Your task to perform on an android device: show emergency info Image 0: 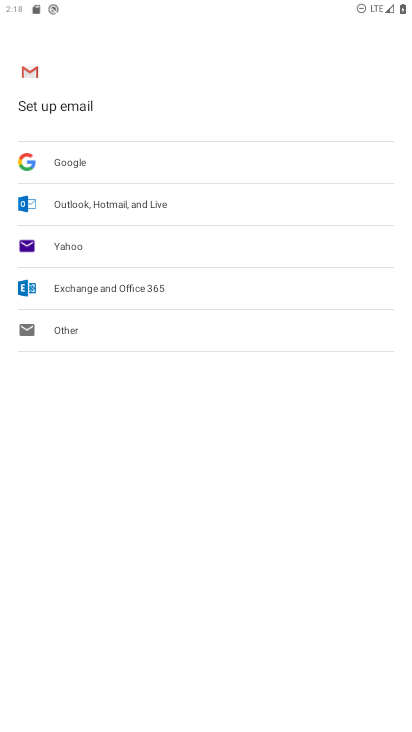
Step 0: press home button
Your task to perform on an android device: show emergency info Image 1: 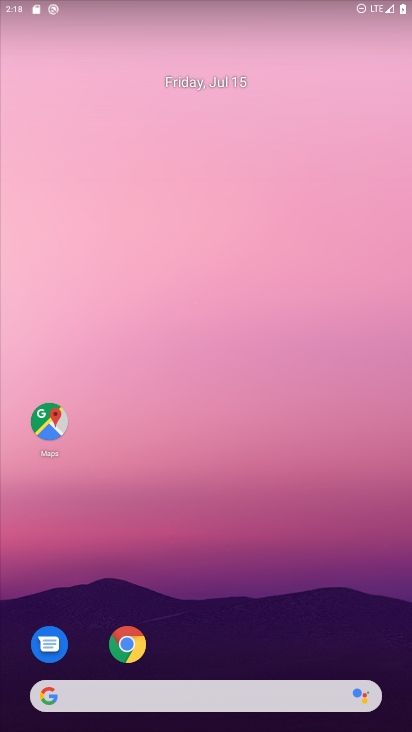
Step 1: drag from (20, 384) to (80, 184)
Your task to perform on an android device: show emergency info Image 2: 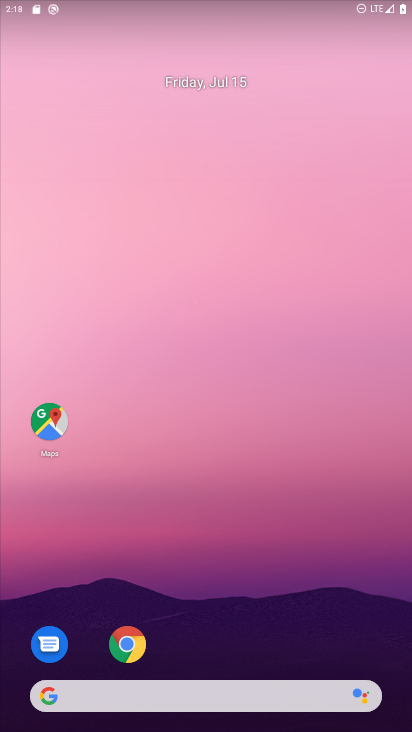
Step 2: drag from (15, 728) to (282, 106)
Your task to perform on an android device: show emergency info Image 3: 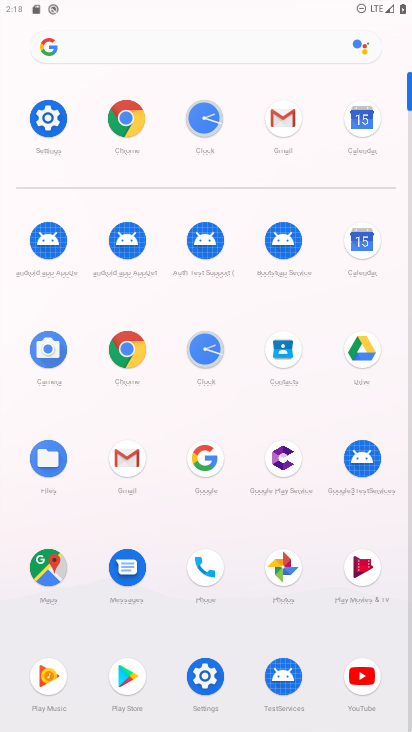
Step 3: click (42, 133)
Your task to perform on an android device: show emergency info Image 4: 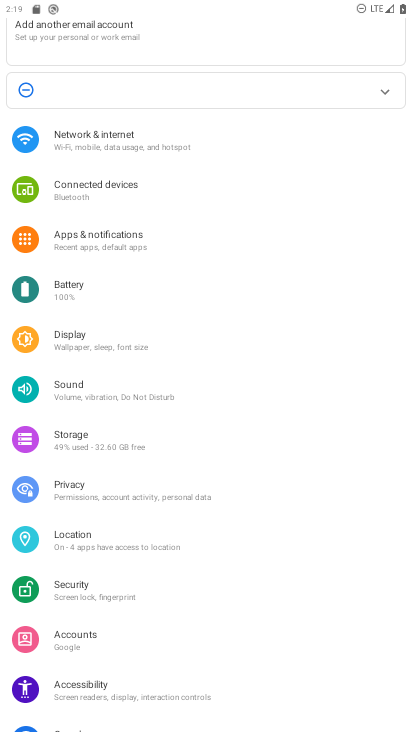
Step 4: drag from (8, 664) to (201, 170)
Your task to perform on an android device: show emergency info Image 5: 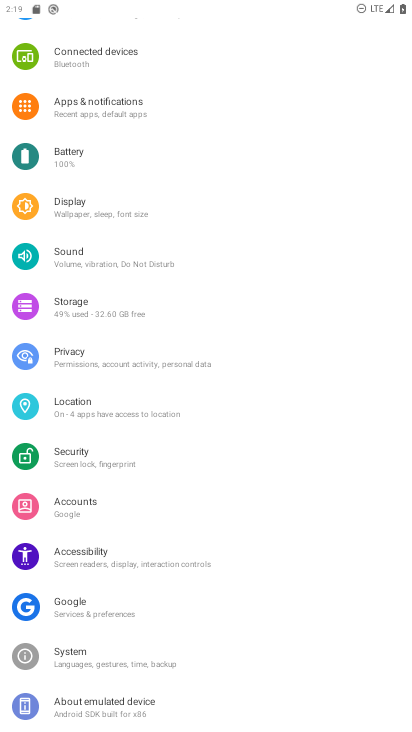
Step 5: click (153, 688)
Your task to perform on an android device: show emergency info Image 6: 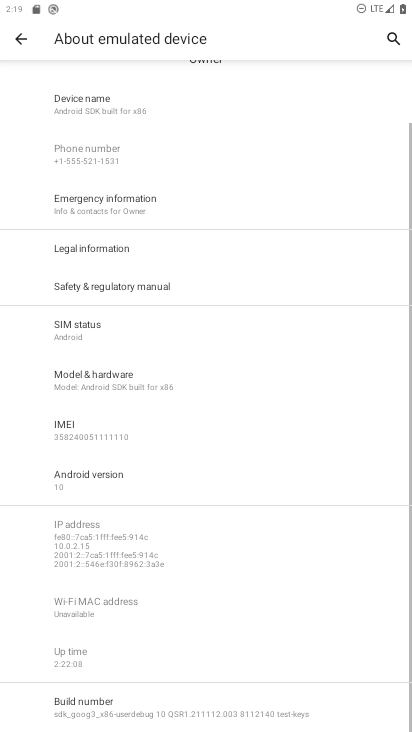
Step 6: click (132, 208)
Your task to perform on an android device: show emergency info Image 7: 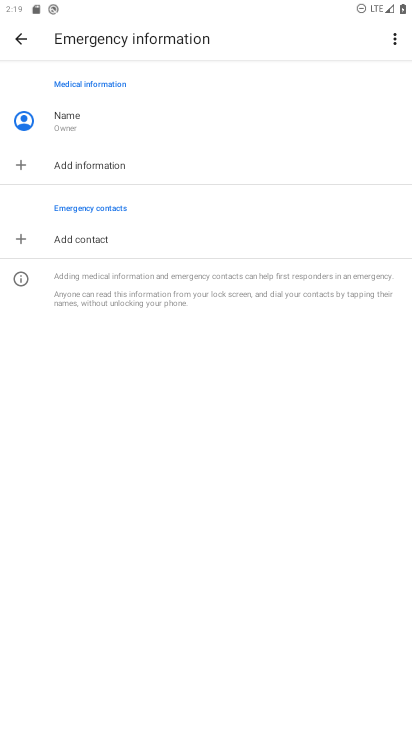
Step 7: task complete